Your task to perform on an android device: all mails in gmail Image 0: 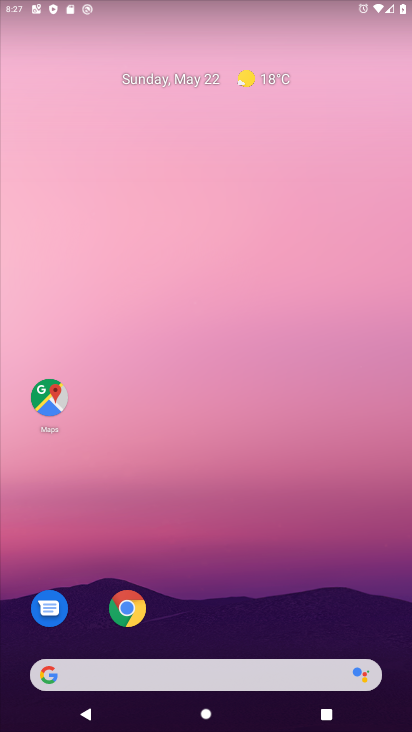
Step 0: drag from (222, 696) to (175, 4)
Your task to perform on an android device: all mails in gmail Image 1: 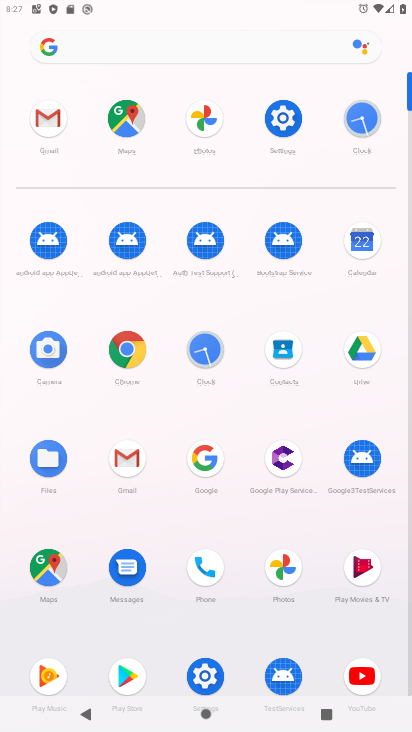
Step 1: click (124, 460)
Your task to perform on an android device: all mails in gmail Image 2: 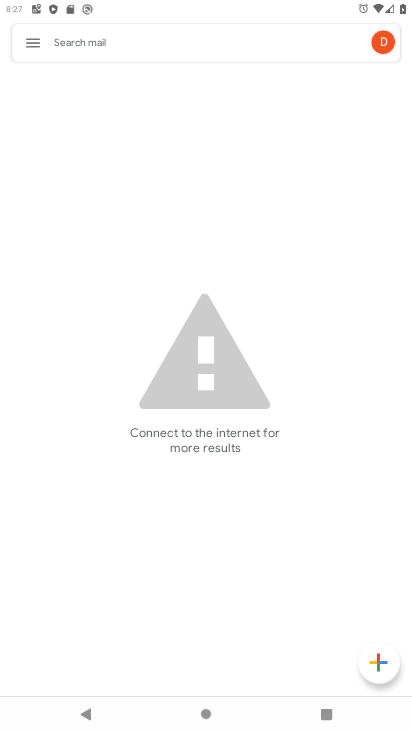
Step 2: click (37, 37)
Your task to perform on an android device: all mails in gmail Image 3: 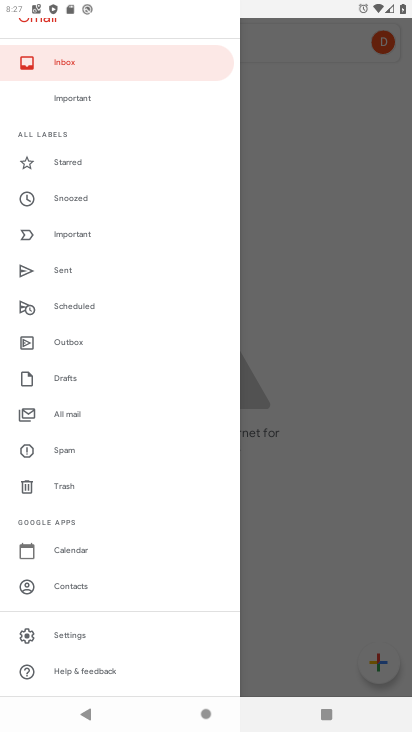
Step 3: click (88, 409)
Your task to perform on an android device: all mails in gmail Image 4: 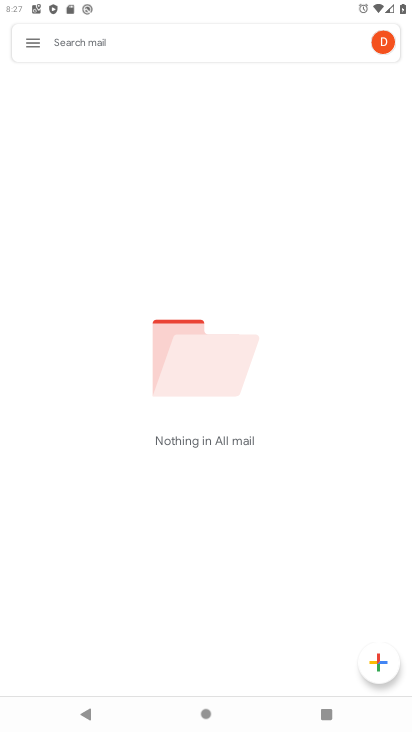
Step 4: task complete